Your task to perform on an android device: turn off airplane mode Image 0: 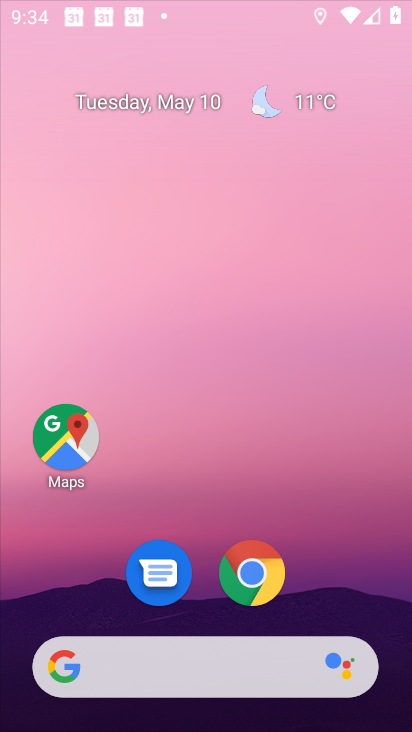
Step 0: drag from (303, 529) to (305, 171)
Your task to perform on an android device: turn off airplane mode Image 1: 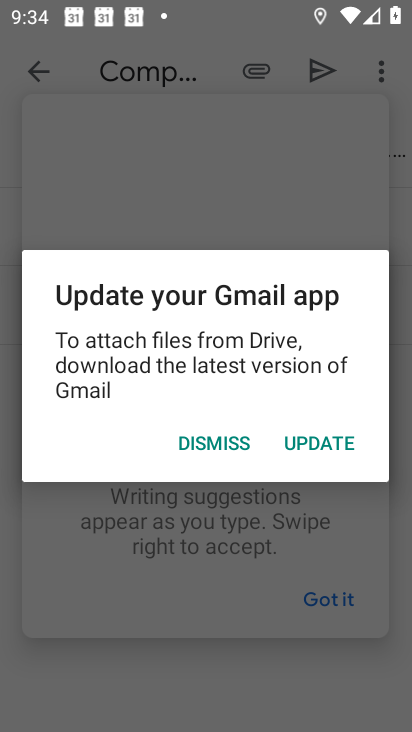
Step 1: press home button
Your task to perform on an android device: turn off airplane mode Image 2: 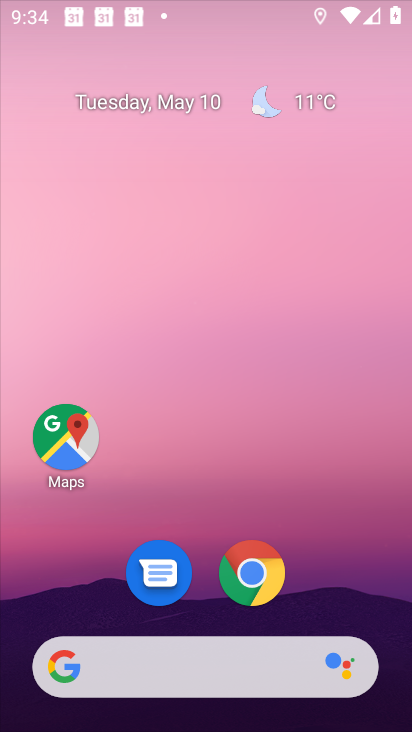
Step 2: drag from (318, 469) to (323, 70)
Your task to perform on an android device: turn off airplane mode Image 3: 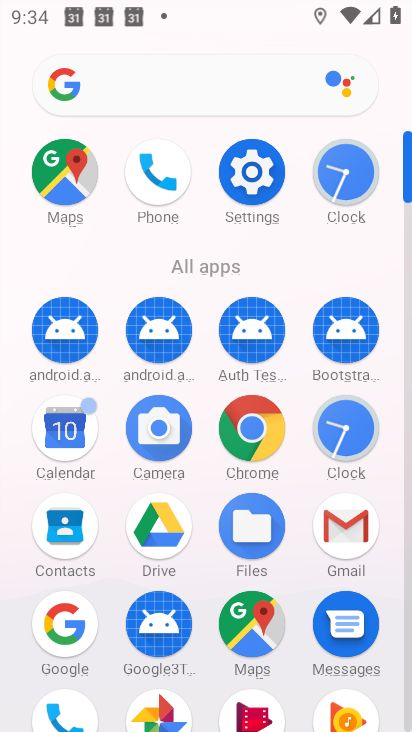
Step 3: click (257, 194)
Your task to perform on an android device: turn off airplane mode Image 4: 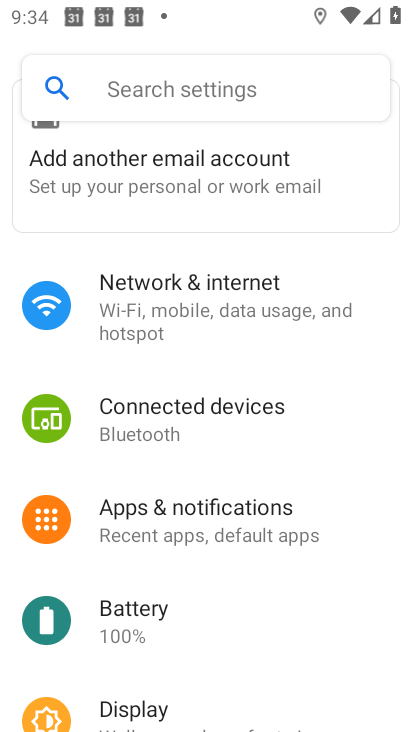
Step 4: click (219, 283)
Your task to perform on an android device: turn off airplane mode Image 5: 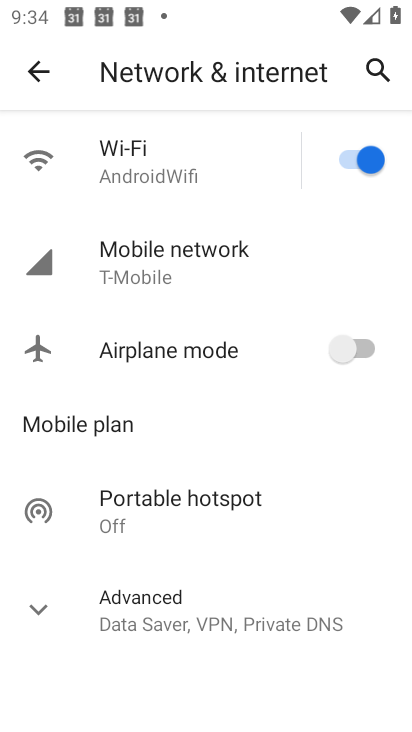
Step 5: task complete